Your task to perform on an android device: find snoozed emails in the gmail app Image 0: 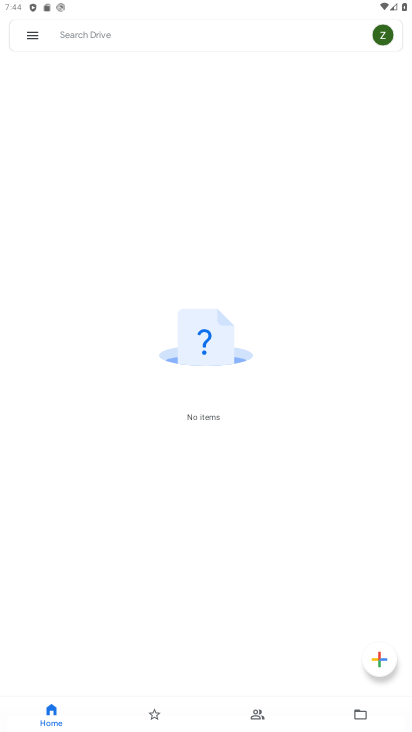
Step 0: press home button
Your task to perform on an android device: find snoozed emails in the gmail app Image 1: 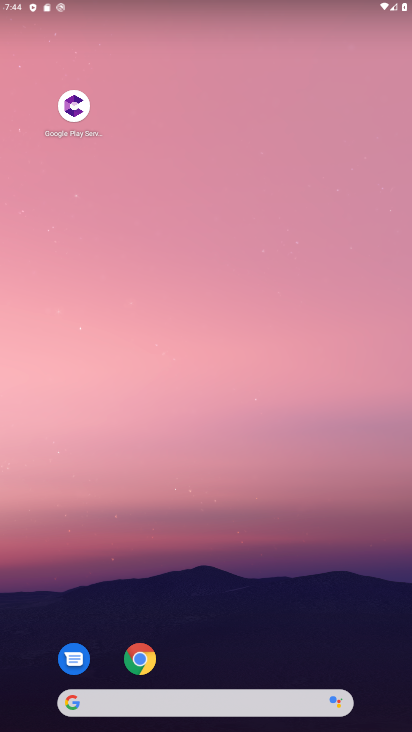
Step 1: drag from (281, 675) to (250, 172)
Your task to perform on an android device: find snoozed emails in the gmail app Image 2: 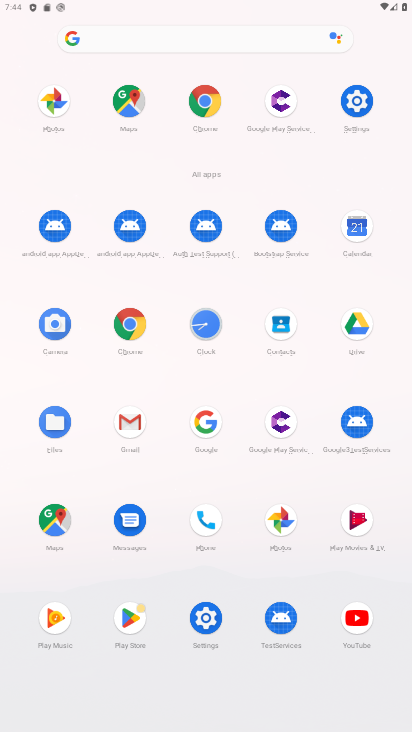
Step 2: click (133, 428)
Your task to perform on an android device: find snoozed emails in the gmail app Image 3: 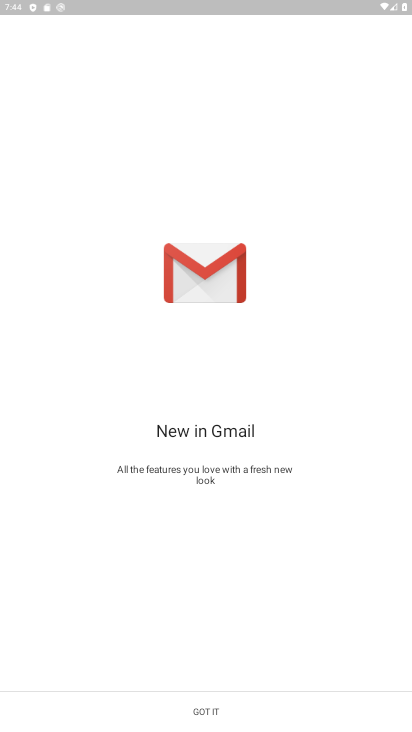
Step 3: click (226, 709)
Your task to perform on an android device: find snoozed emails in the gmail app Image 4: 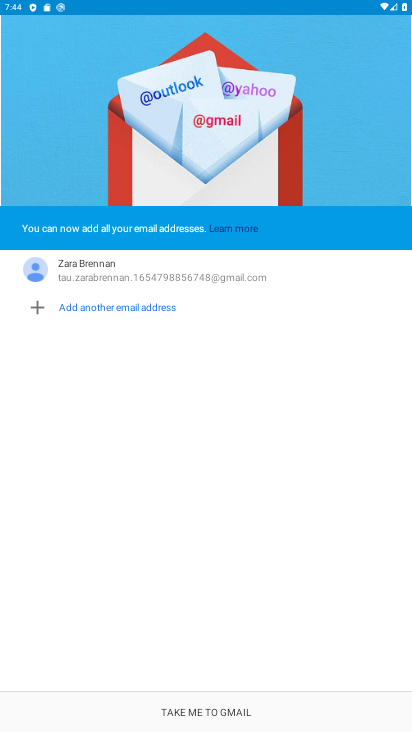
Step 4: click (241, 702)
Your task to perform on an android device: find snoozed emails in the gmail app Image 5: 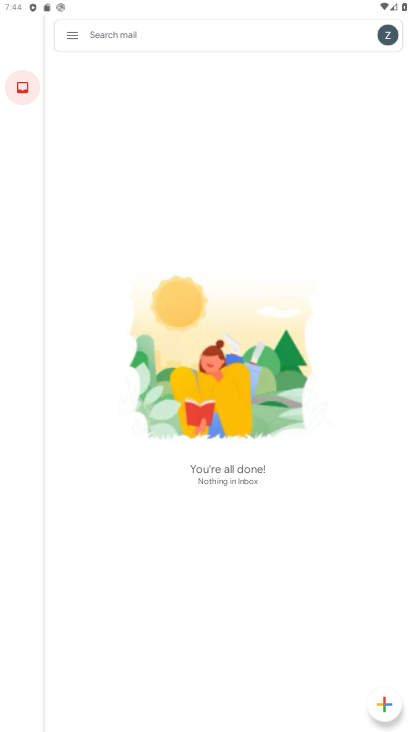
Step 5: click (63, 33)
Your task to perform on an android device: find snoozed emails in the gmail app Image 6: 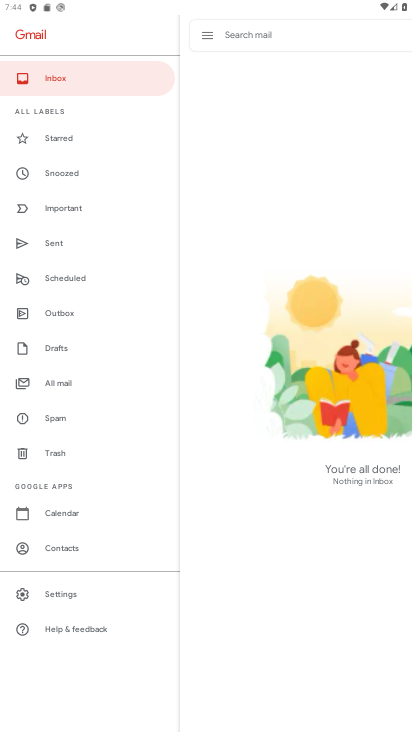
Step 6: click (68, 177)
Your task to perform on an android device: find snoozed emails in the gmail app Image 7: 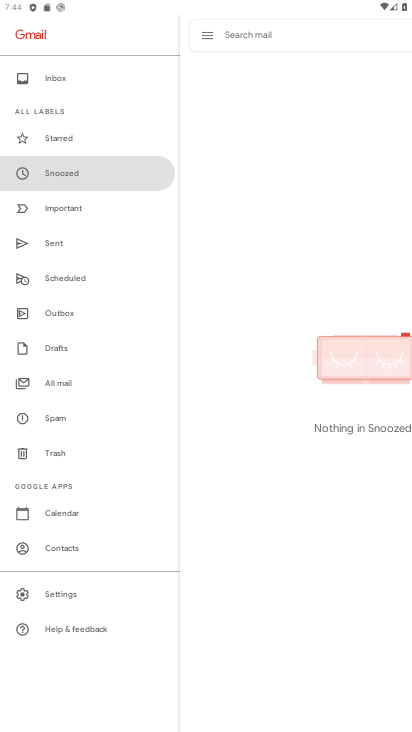
Step 7: task complete